Your task to perform on an android device: Open CNN.com Image 0: 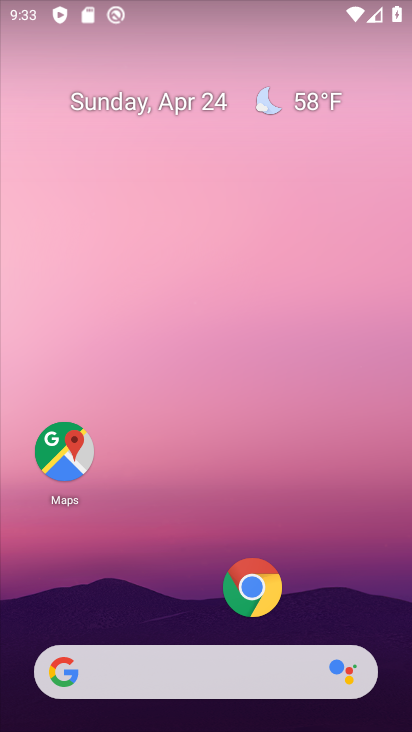
Step 0: click (270, 587)
Your task to perform on an android device: Open CNN.com Image 1: 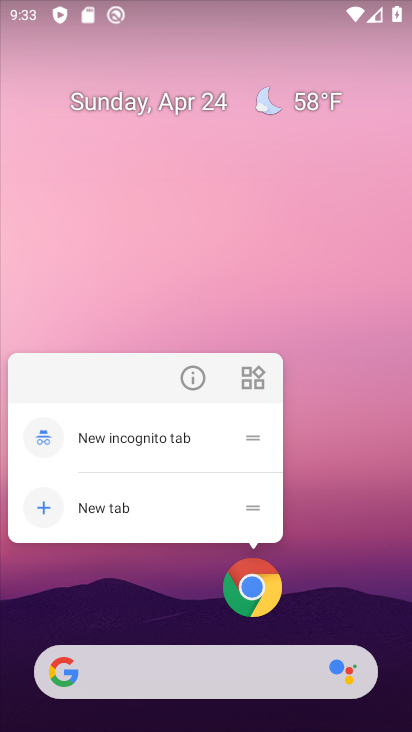
Step 1: click (269, 602)
Your task to perform on an android device: Open CNN.com Image 2: 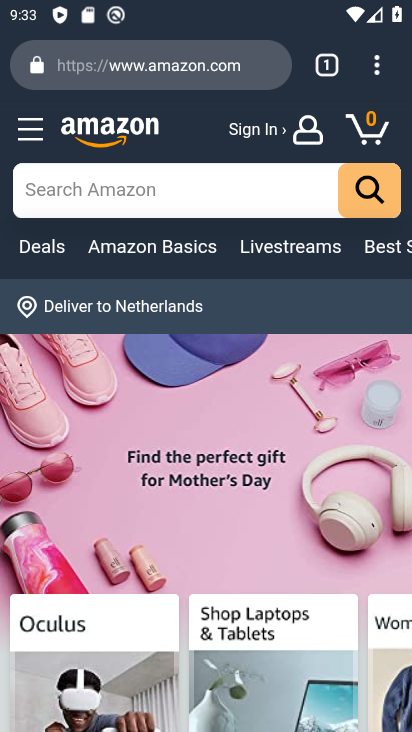
Step 2: click (197, 67)
Your task to perform on an android device: Open CNN.com Image 3: 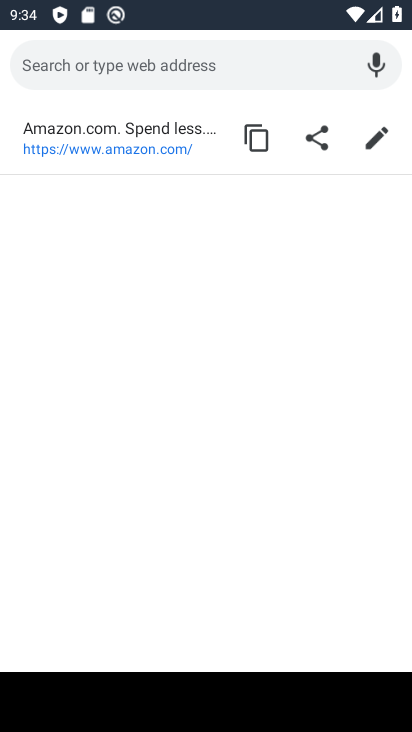
Step 3: type "CNN.com"
Your task to perform on an android device: Open CNN.com Image 4: 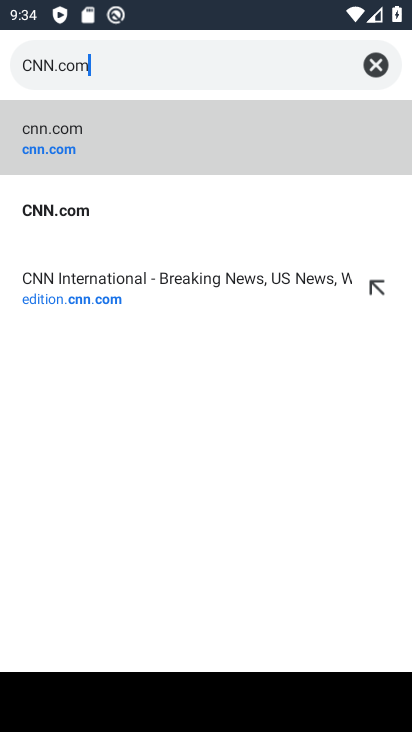
Step 4: click (143, 212)
Your task to perform on an android device: Open CNN.com Image 5: 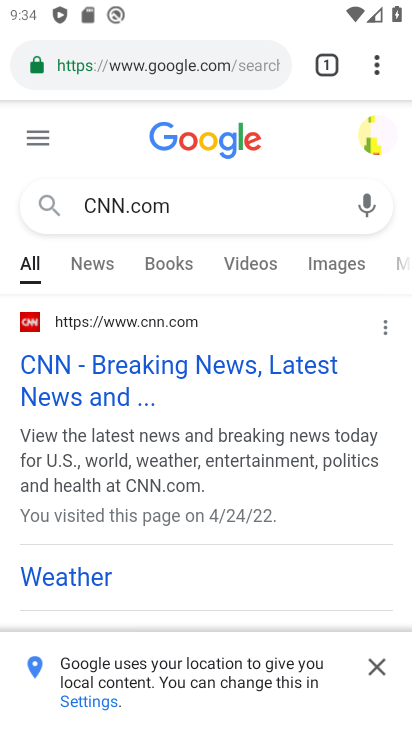
Step 5: click (102, 378)
Your task to perform on an android device: Open CNN.com Image 6: 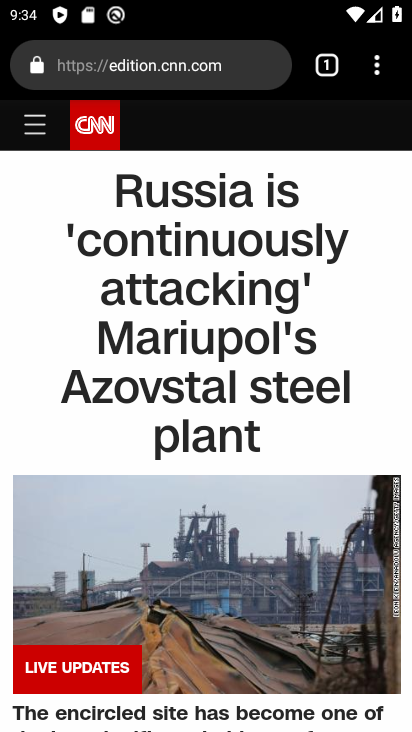
Step 6: task complete